Your task to perform on an android device: Show me recent news Image 0: 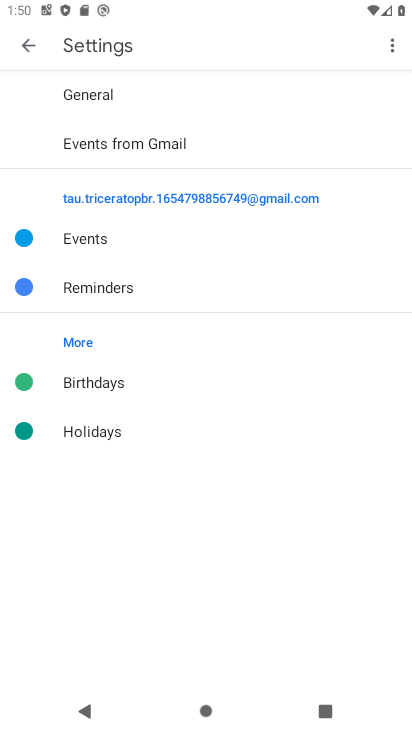
Step 0: press home button
Your task to perform on an android device: Show me recent news Image 1: 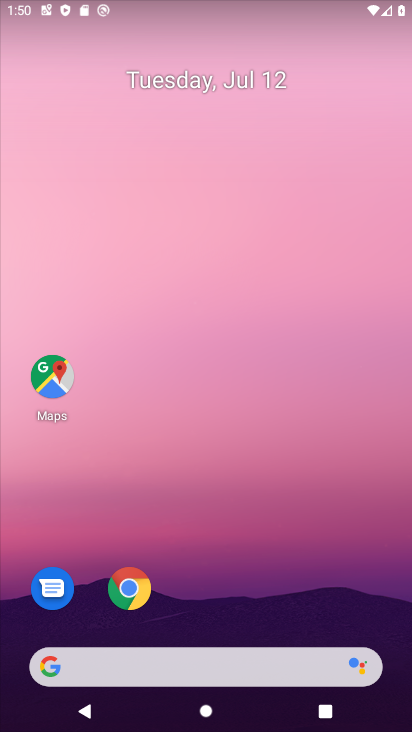
Step 1: task complete